Your task to perform on an android device: remove spam from my inbox in the gmail app Image 0: 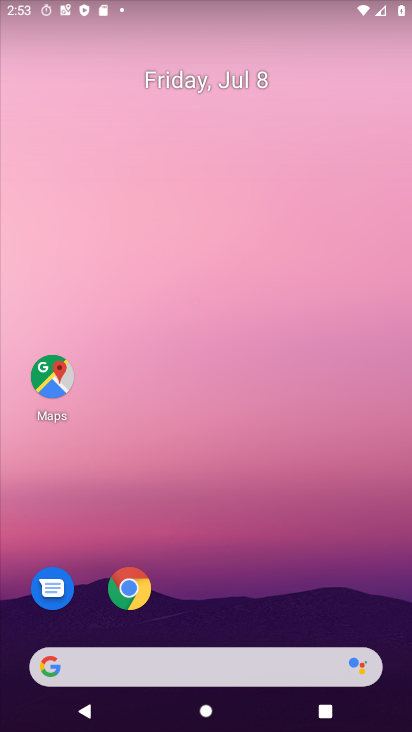
Step 0: press home button
Your task to perform on an android device: remove spam from my inbox in the gmail app Image 1: 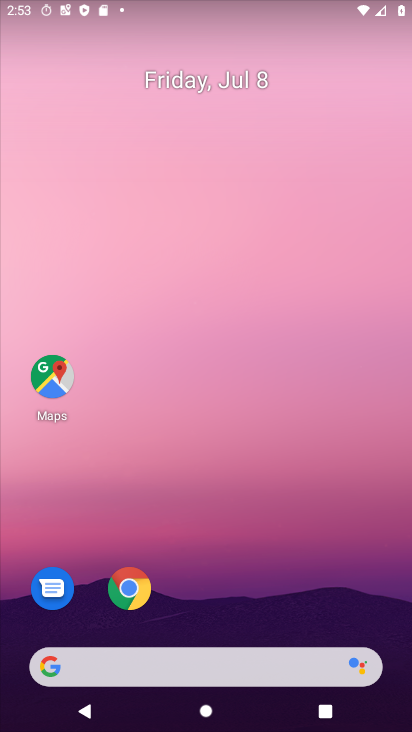
Step 1: drag from (221, 611) to (286, 144)
Your task to perform on an android device: remove spam from my inbox in the gmail app Image 2: 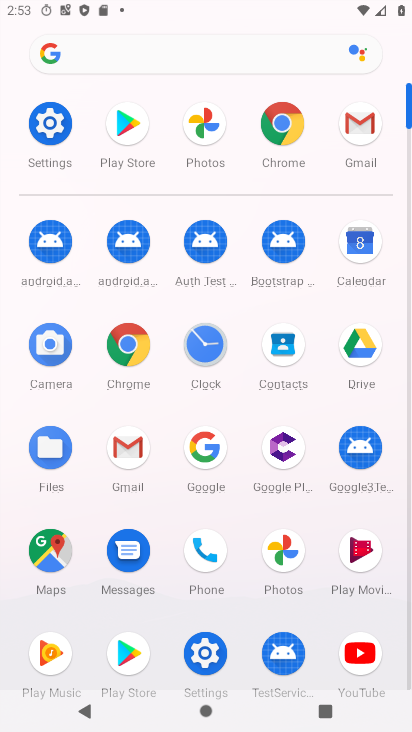
Step 2: click (372, 124)
Your task to perform on an android device: remove spam from my inbox in the gmail app Image 3: 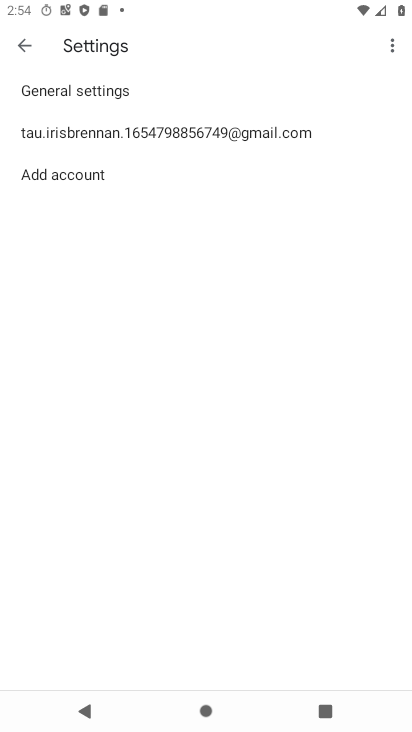
Step 3: press back button
Your task to perform on an android device: remove spam from my inbox in the gmail app Image 4: 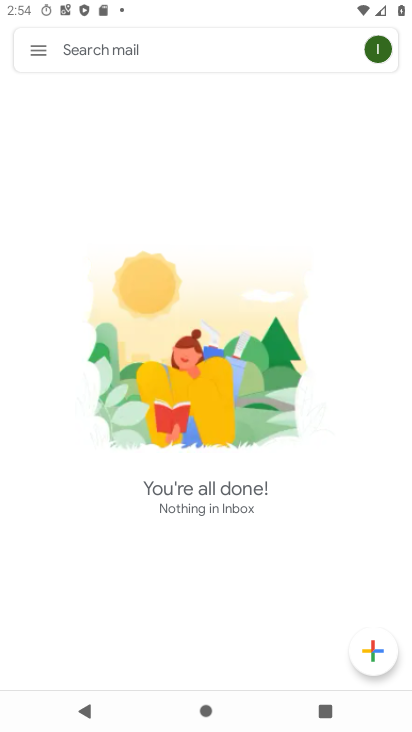
Step 4: click (32, 48)
Your task to perform on an android device: remove spam from my inbox in the gmail app Image 5: 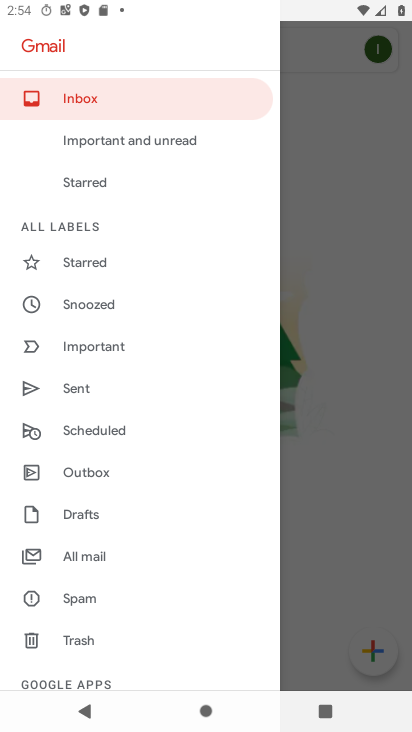
Step 5: click (82, 596)
Your task to perform on an android device: remove spam from my inbox in the gmail app Image 6: 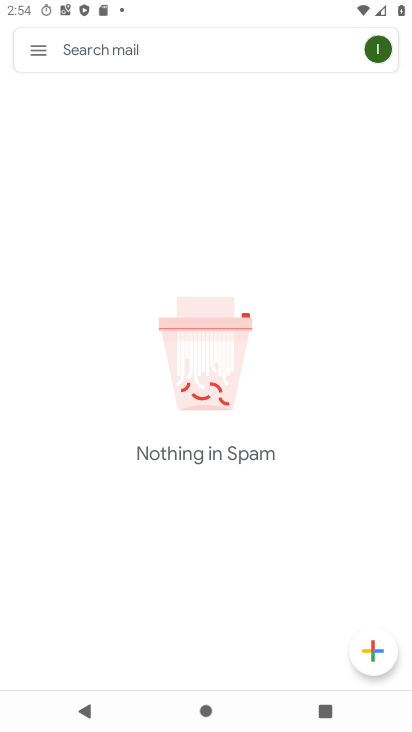
Step 6: task complete